Your task to perform on an android device: open sync settings in chrome Image 0: 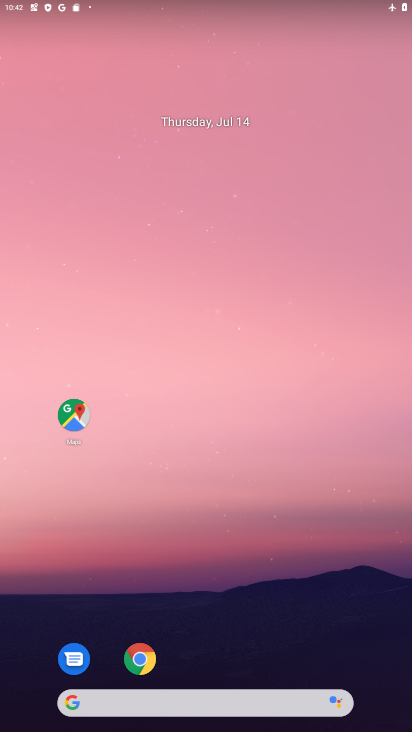
Step 0: drag from (302, 618) to (313, 106)
Your task to perform on an android device: open sync settings in chrome Image 1: 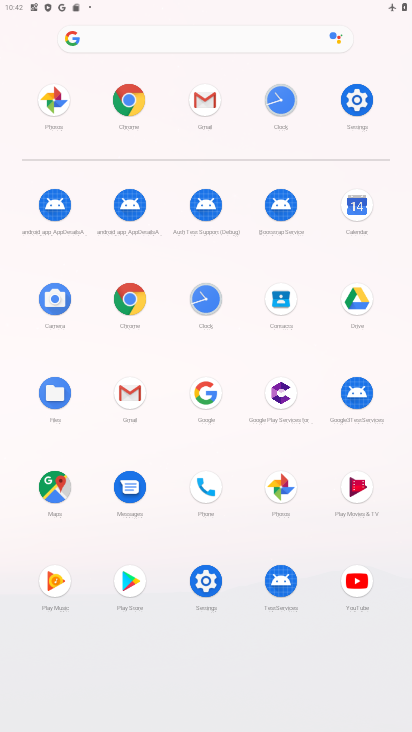
Step 1: click (133, 297)
Your task to perform on an android device: open sync settings in chrome Image 2: 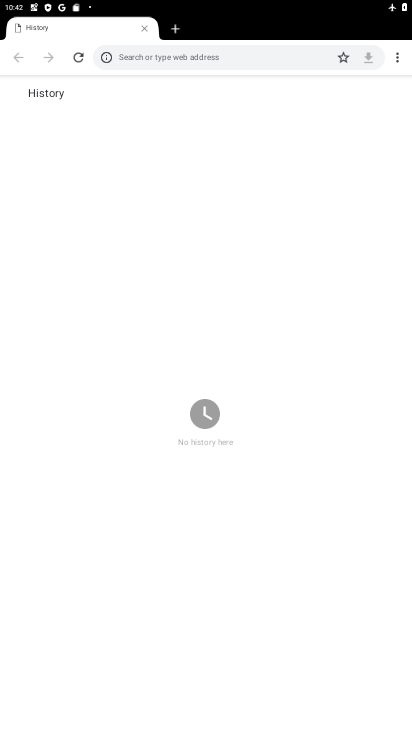
Step 2: drag from (396, 63) to (274, 268)
Your task to perform on an android device: open sync settings in chrome Image 3: 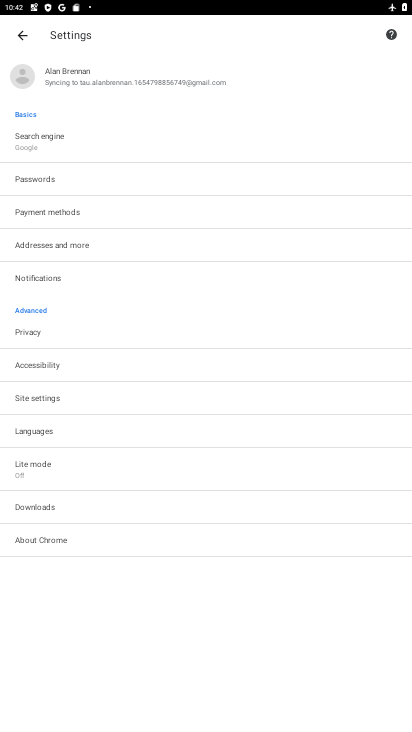
Step 3: click (60, 397)
Your task to perform on an android device: open sync settings in chrome Image 4: 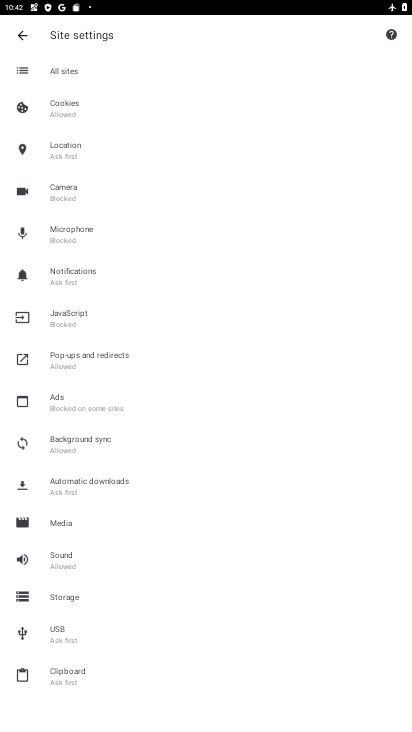
Step 4: click (21, 32)
Your task to perform on an android device: open sync settings in chrome Image 5: 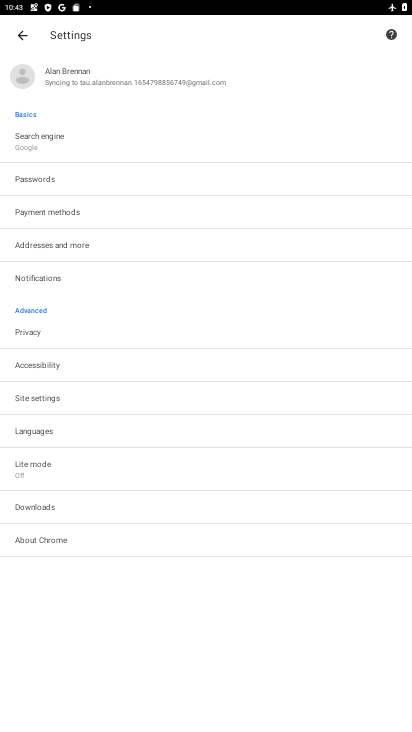
Step 5: click (106, 73)
Your task to perform on an android device: open sync settings in chrome Image 6: 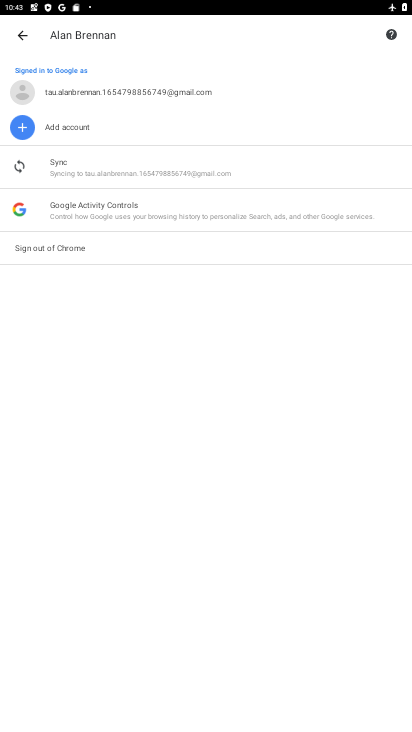
Step 6: click (90, 168)
Your task to perform on an android device: open sync settings in chrome Image 7: 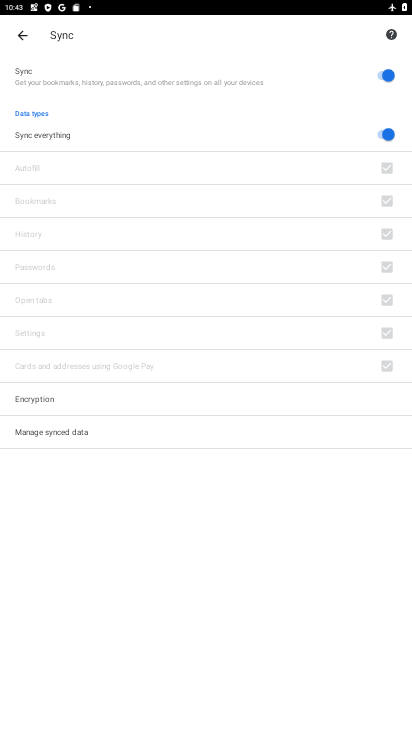
Step 7: task complete